Your task to perform on an android device: Open calendar and show me the fourth week of next month Image 0: 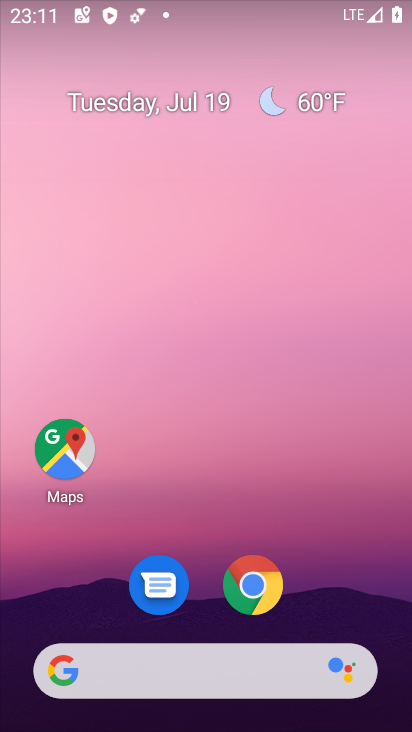
Step 0: drag from (331, 560) to (358, 66)
Your task to perform on an android device: Open calendar and show me the fourth week of next month Image 1: 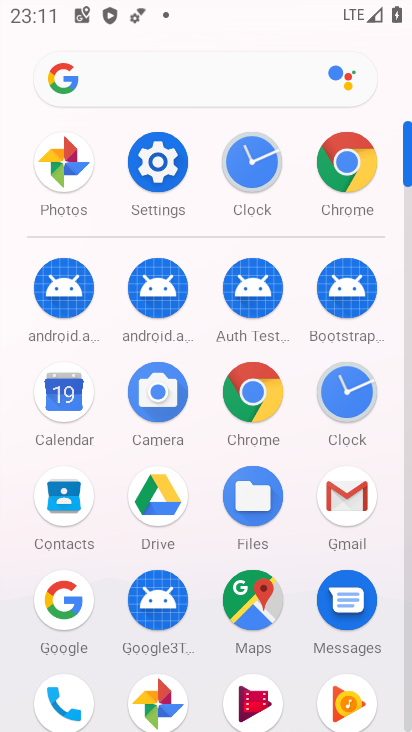
Step 1: click (66, 394)
Your task to perform on an android device: Open calendar and show me the fourth week of next month Image 2: 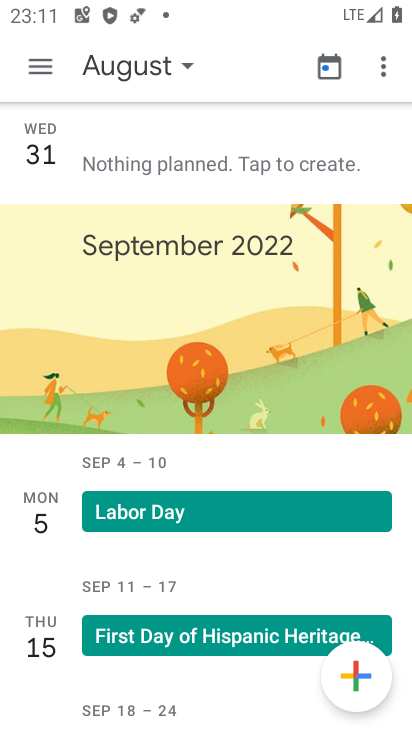
Step 2: click (45, 70)
Your task to perform on an android device: Open calendar and show me the fourth week of next month Image 3: 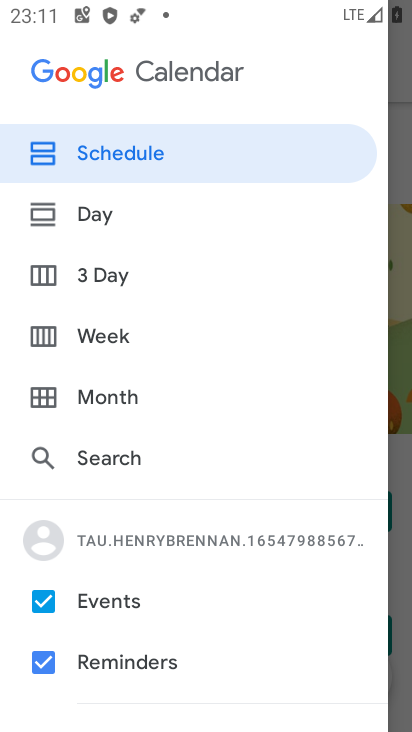
Step 3: click (112, 389)
Your task to perform on an android device: Open calendar and show me the fourth week of next month Image 4: 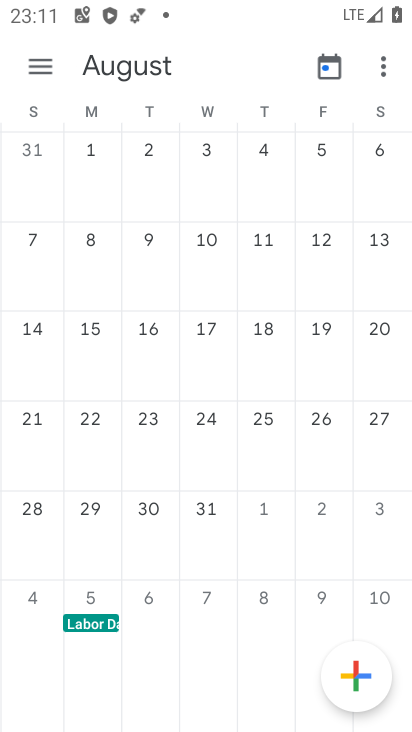
Step 4: click (37, 501)
Your task to perform on an android device: Open calendar and show me the fourth week of next month Image 5: 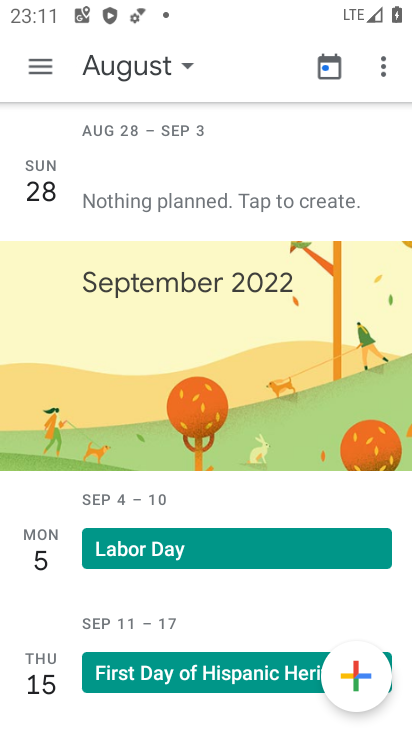
Step 5: click (47, 71)
Your task to perform on an android device: Open calendar and show me the fourth week of next month Image 6: 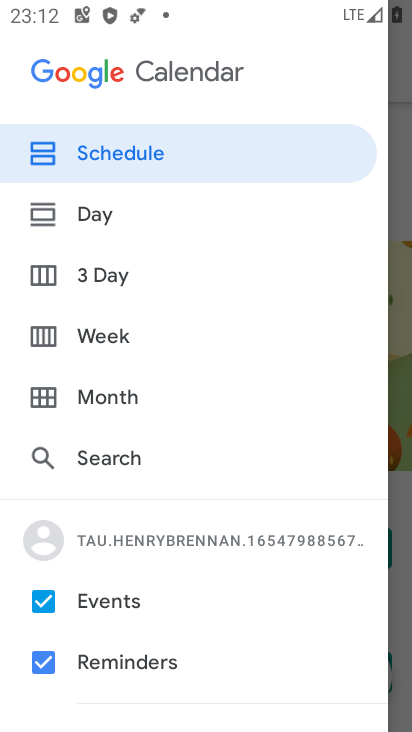
Step 6: click (113, 328)
Your task to perform on an android device: Open calendar and show me the fourth week of next month Image 7: 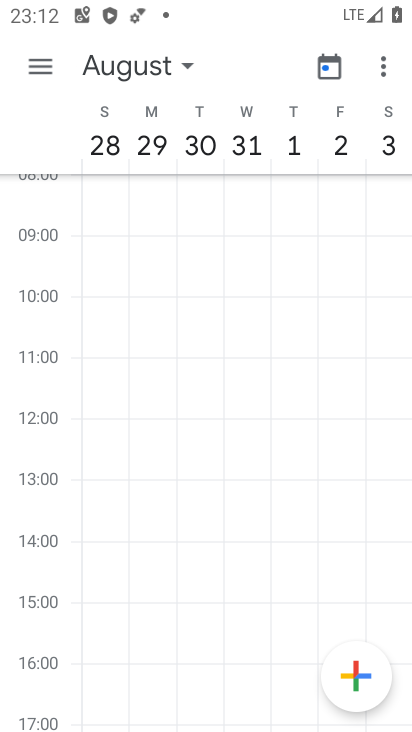
Step 7: task complete